Your task to perform on an android device: Open network settings Image 0: 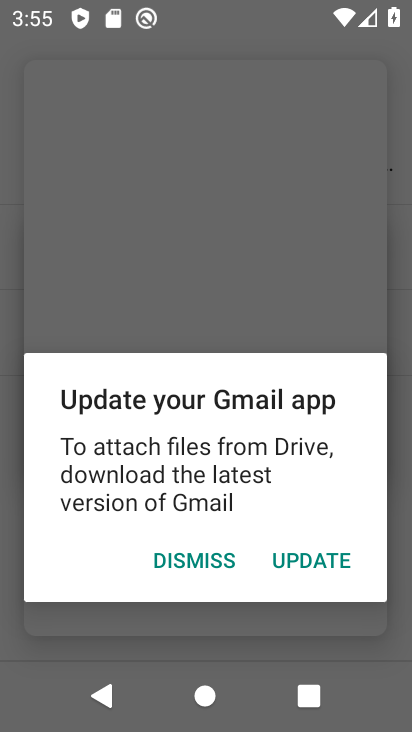
Step 0: press home button
Your task to perform on an android device: Open network settings Image 1: 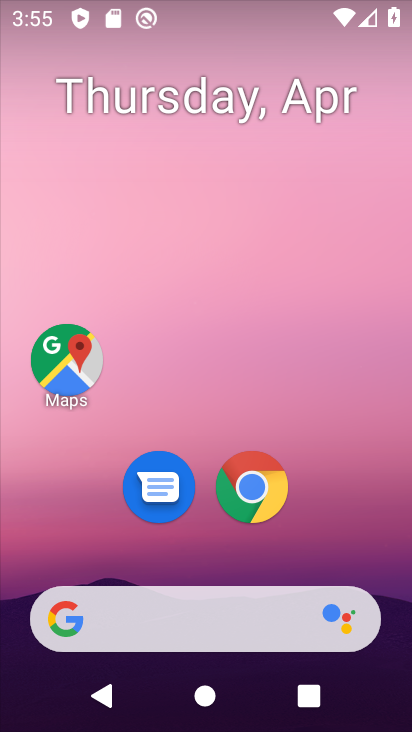
Step 1: drag from (212, 563) to (255, 113)
Your task to perform on an android device: Open network settings Image 2: 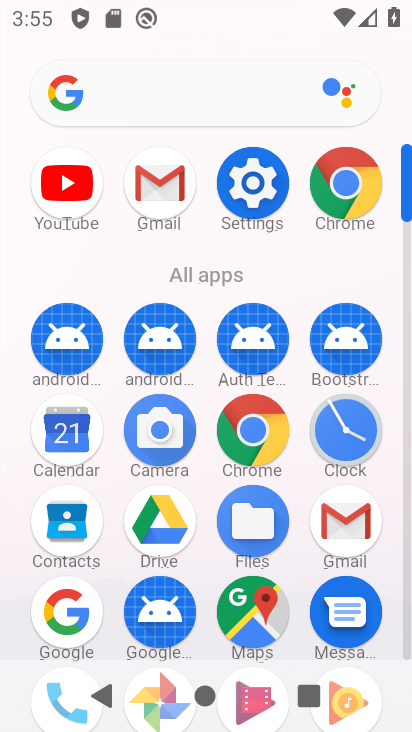
Step 2: click (252, 166)
Your task to perform on an android device: Open network settings Image 3: 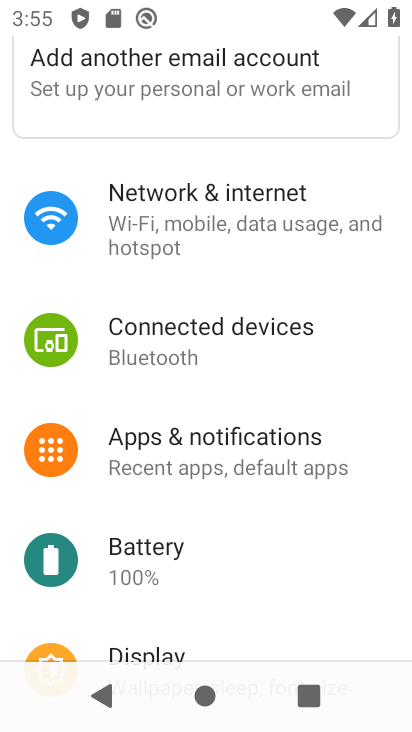
Step 3: click (250, 211)
Your task to perform on an android device: Open network settings Image 4: 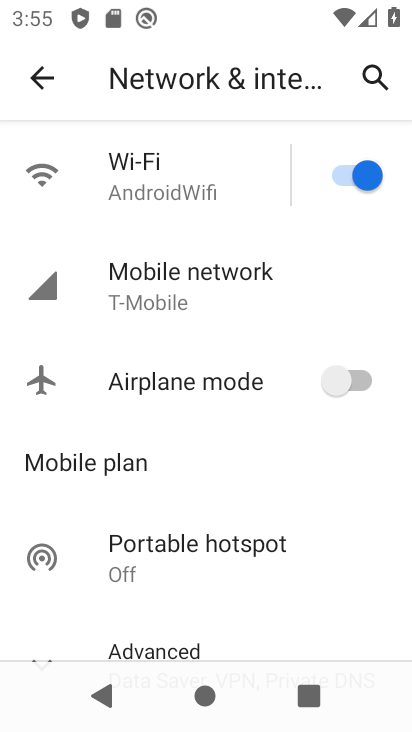
Step 4: task complete